Your task to perform on an android device: turn on location history Image 0: 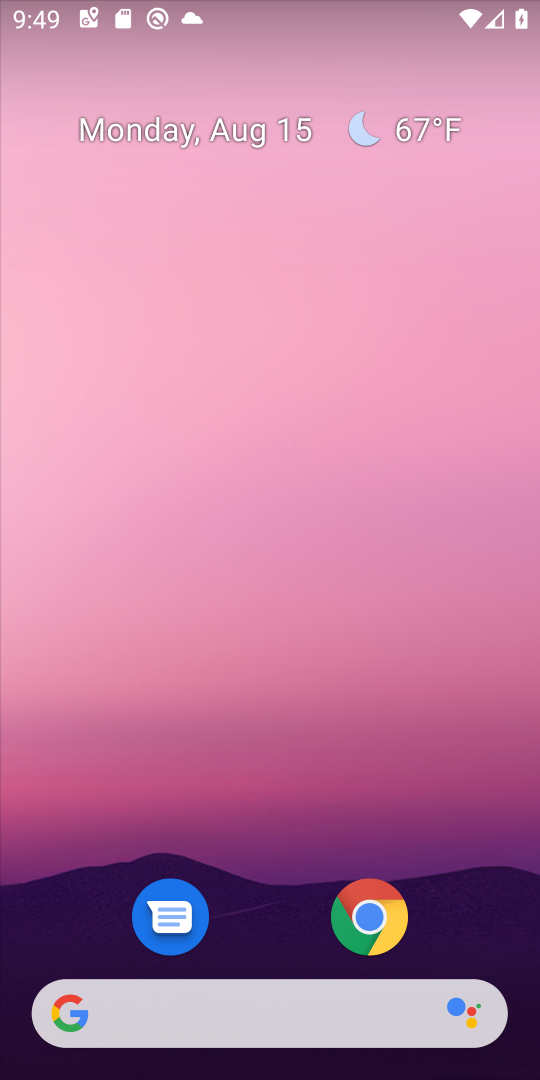
Step 0: drag from (273, 874) to (351, 0)
Your task to perform on an android device: turn on location history Image 1: 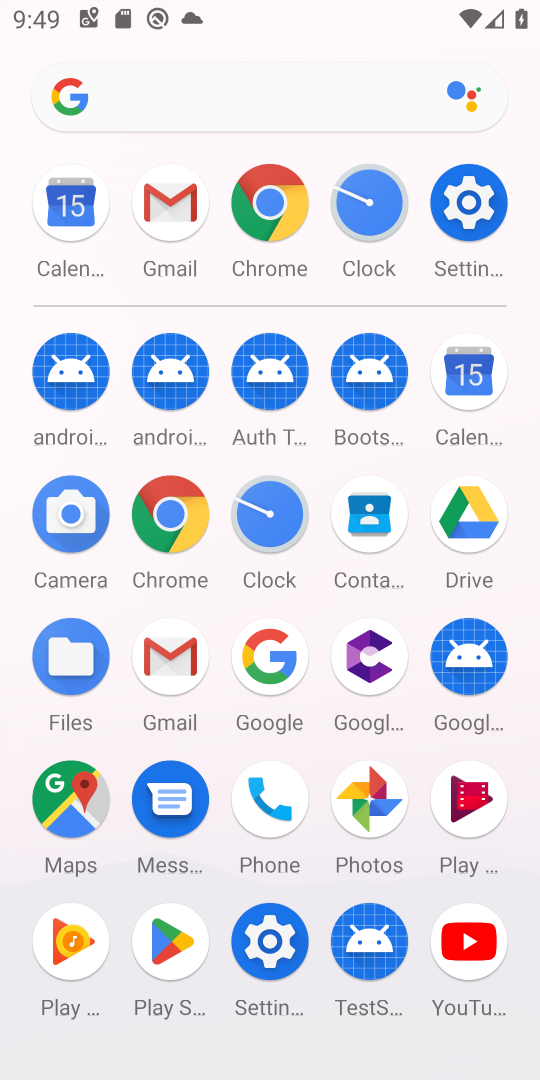
Step 1: drag from (310, 358) to (285, 0)
Your task to perform on an android device: turn on location history Image 2: 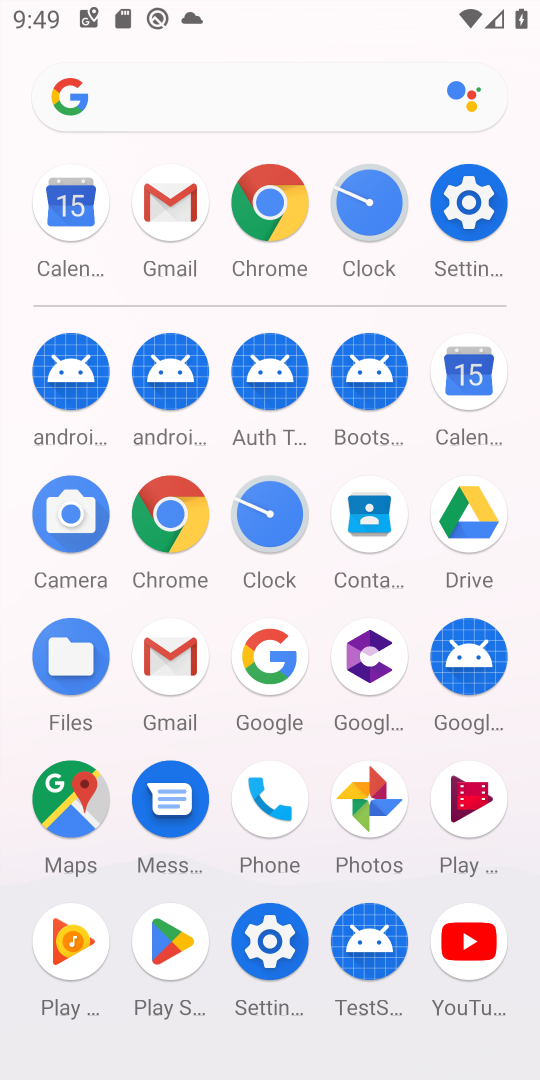
Step 2: click (466, 196)
Your task to perform on an android device: turn on location history Image 3: 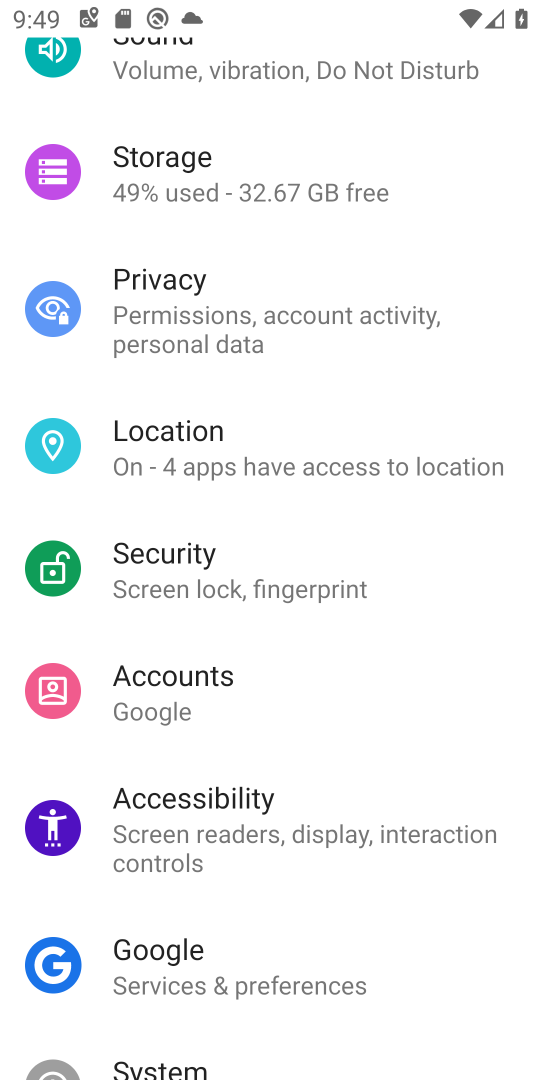
Step 3: click (283, 451)
Your task to perform on an android device: turn on location history Image 4: 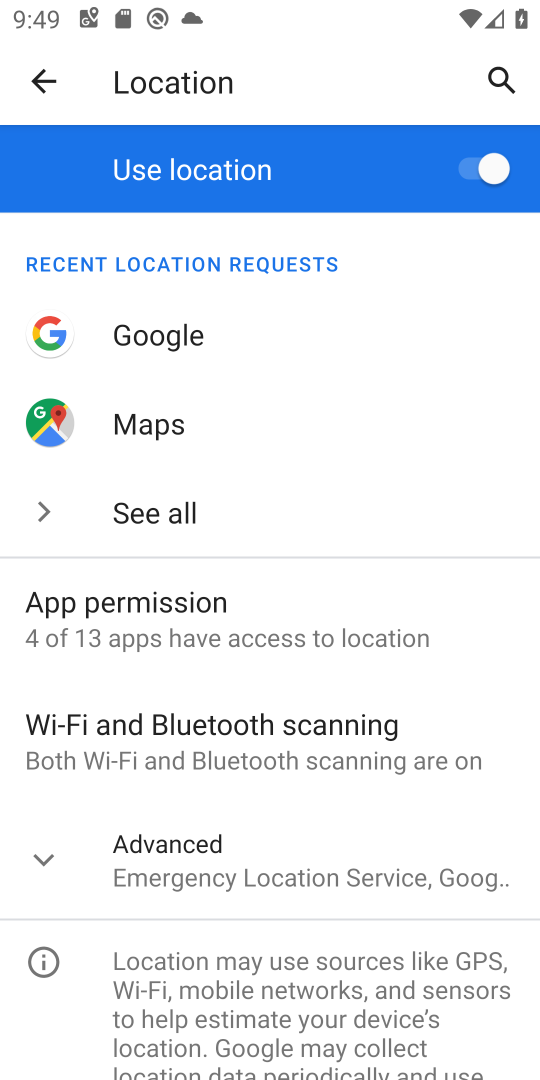
Step 4: click (43, 851)
Your task to perform on an android device: turn on location history Image 5: 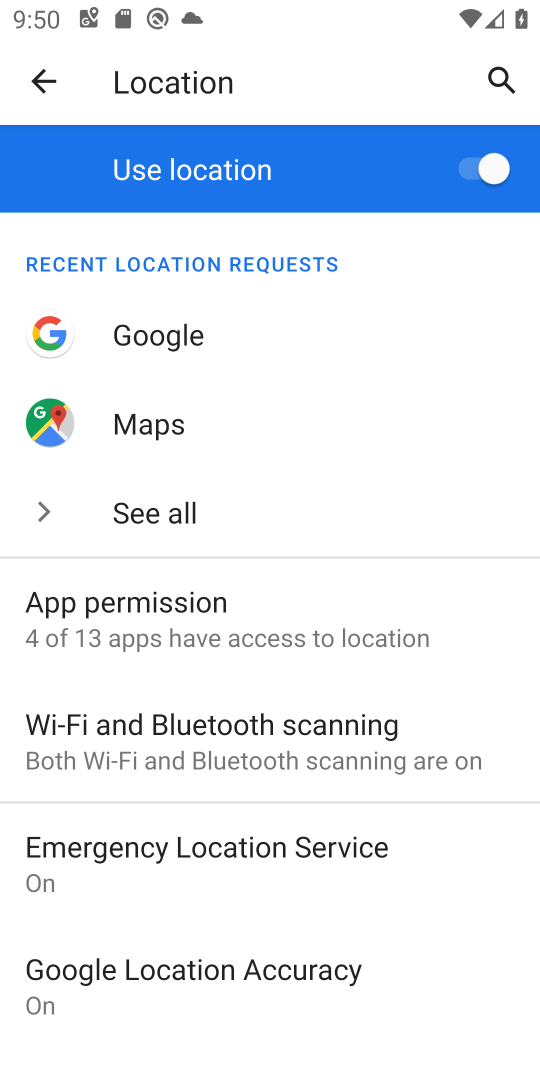
Step 5: drag from (250, 892) to (343, 314)
Your task to perform on an android device: turn on location history Image 6: 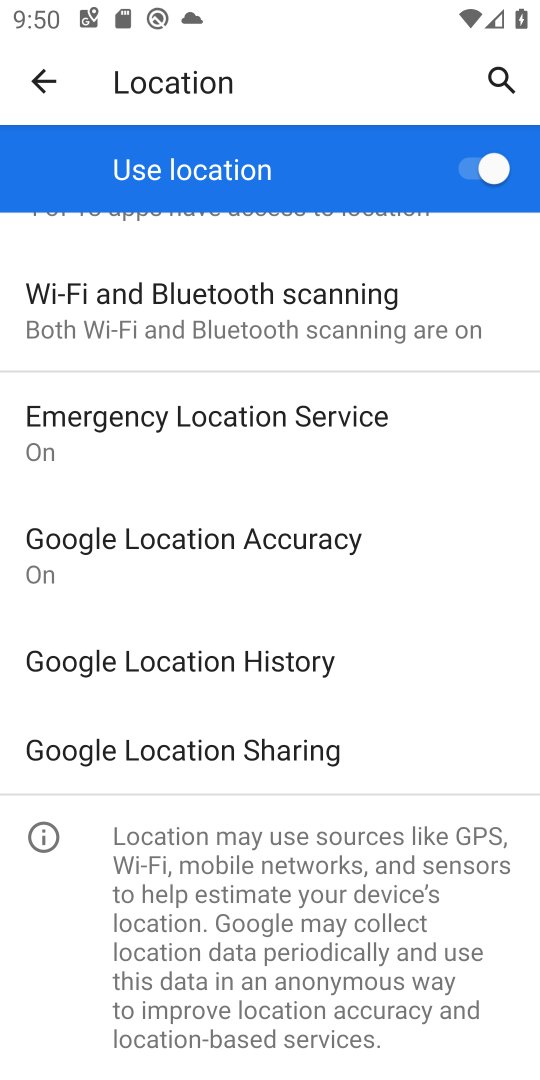
Step 6: click (254, 659)
Your task to perform on an android device: turn on location history Image 7: 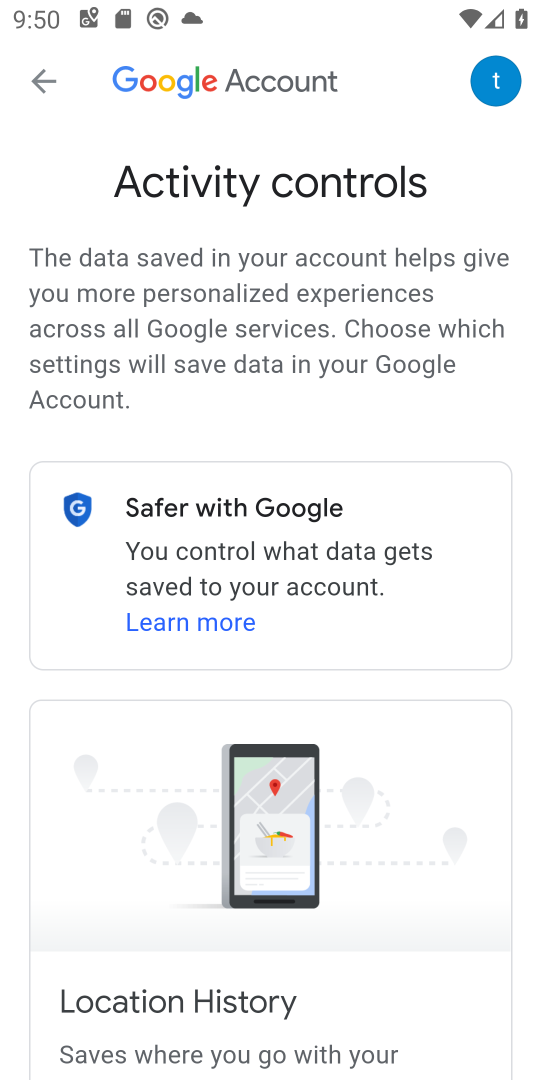
Step 7: task complete